Your task to perform on an android device: delete location history Image 0: 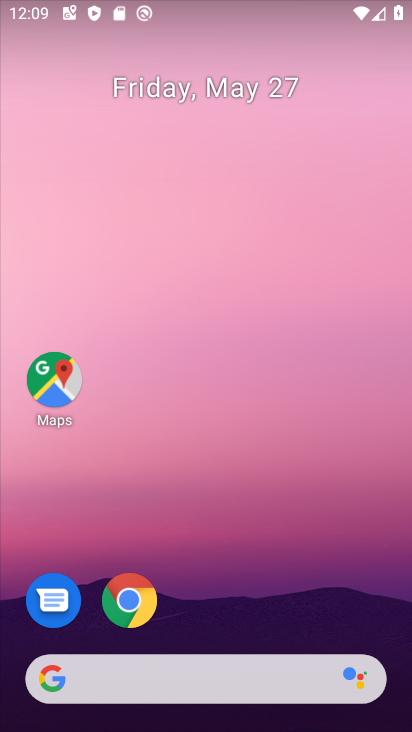
Step 0: drag from (277, 565) to (159, 35)
Your task to perform on an android device: delete location history Image 1: 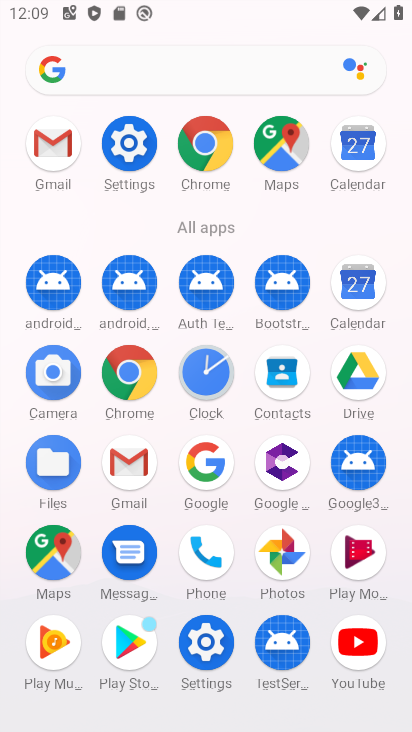
Step 1: drag from (3, 538) to (4, 261)
Your task to perform on an android device: delete location history Image 2: 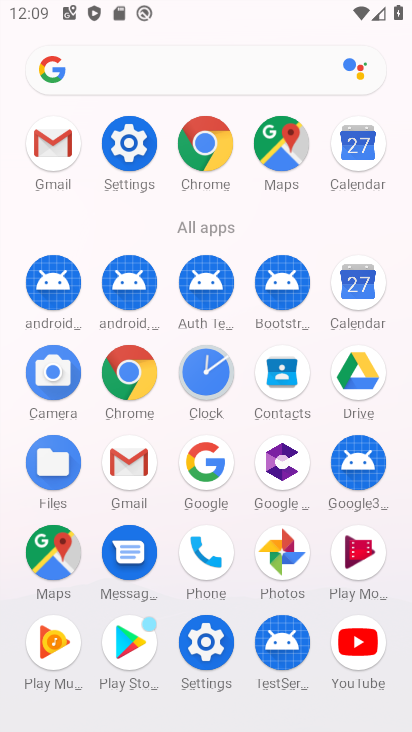
Step 2: click (204, 639)
Your task to perform on an android device: delete location history Image 3: 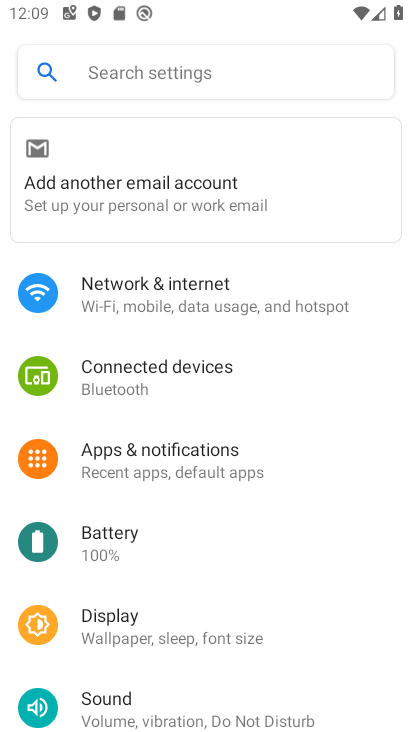
Step 3: drag from (269, 604) to (252, 183)
Your task to perform on an android device: delete location history Image 4: 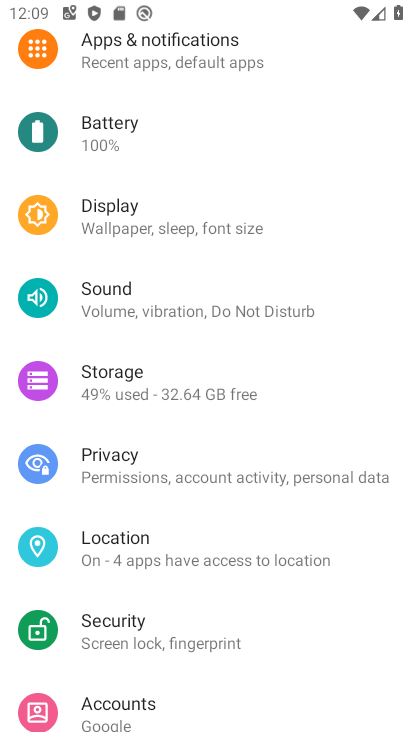
Step 4: click (187, 551)
Your task to perform on an android device: delete location history Image 5: 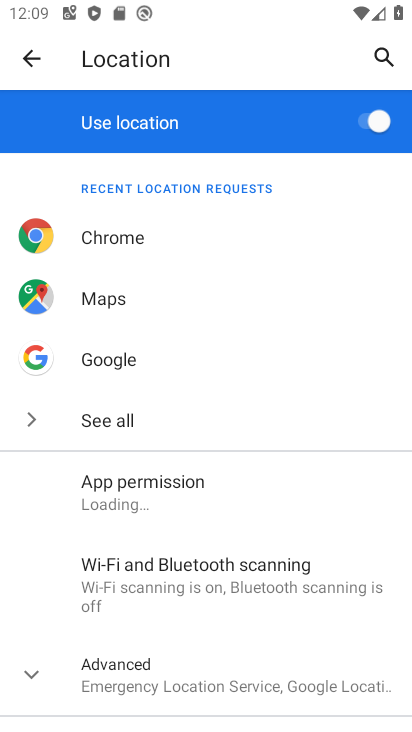
Step 5: click (87, 657)
Your task to perform on an android device: delete location history Image 6: 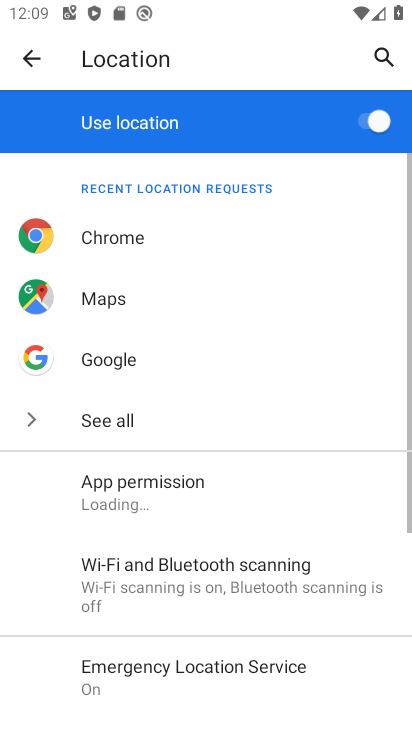
Step 6: drag from (280, 597) to (278, 161)
Your task to perform on an android device: delete location history Image 7: 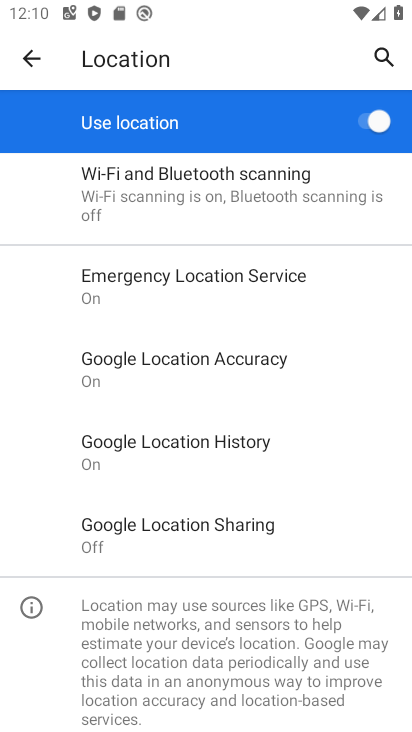
Step 7: drag from (203, 588) to (197, 219)
Your task to perform on an android device: delete location history Image 8: 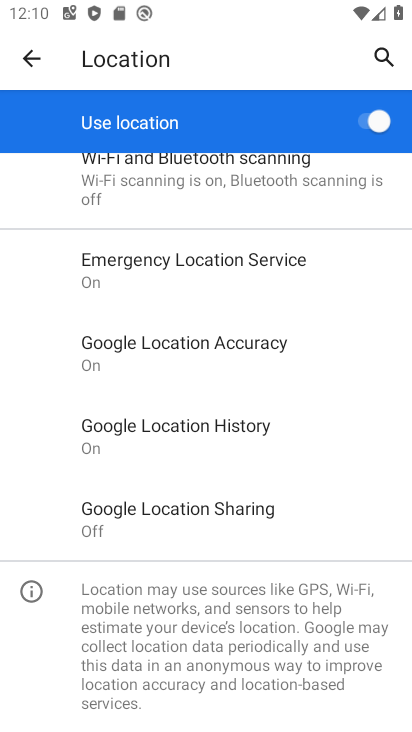
Step 8: click (231, 439)
Your task to perform on an android device: delete location history Image 9: 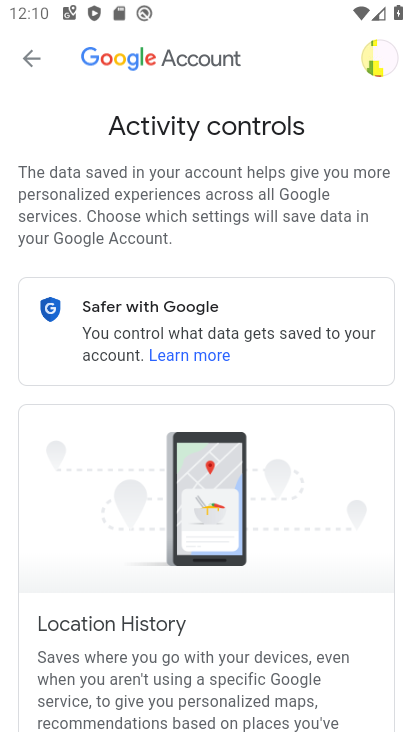
Step 9: drag from (277, 567) to (247, 216)
Your task to perform on an android device: delete location history Image 10: 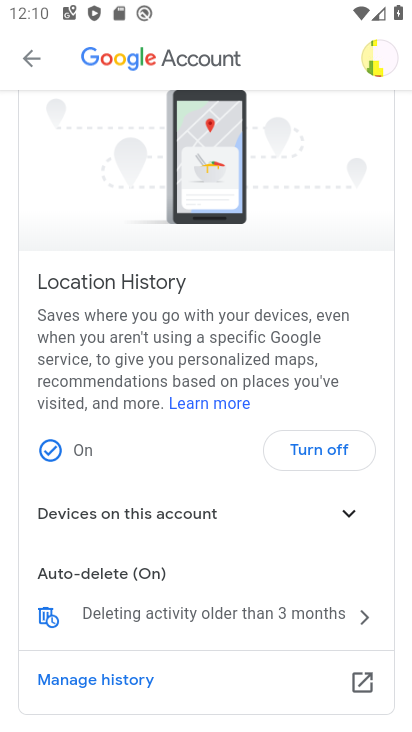
Step 10: drag from (219, 465) to (256, 139)
Your task to perform on an android device: delete location history Image 11: 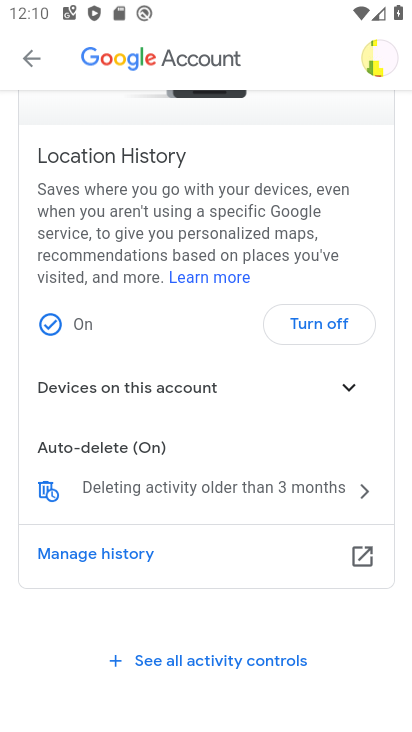
Step 11: click (211, 490)
Your task to perform on an android device: delete location history Image 12: 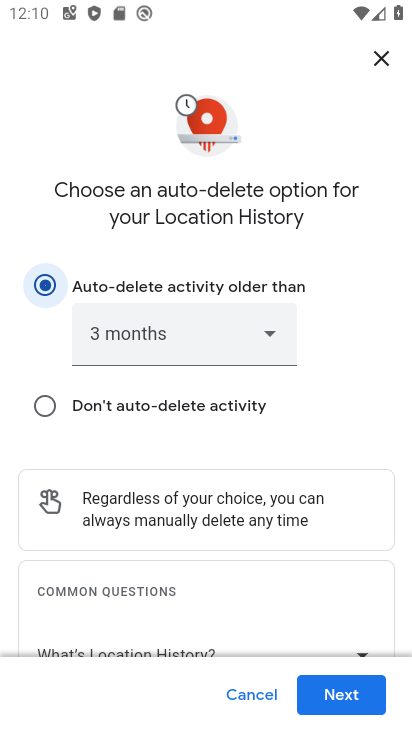
Step 12: click (339, 689)
Your task to perform on an android device: delete location history Image 13: 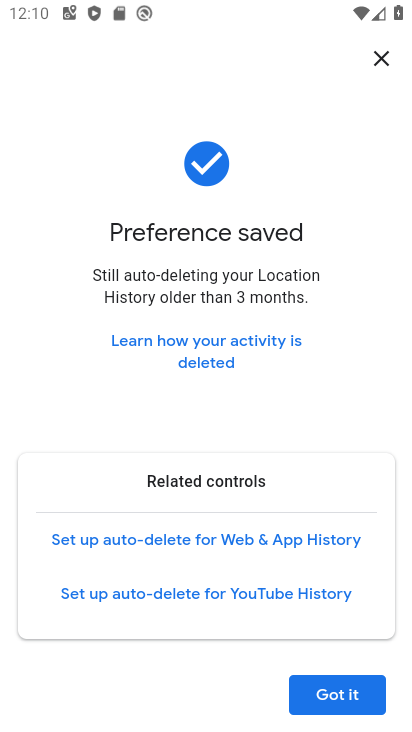
Step 13: task complete